Your task to perform on an android device: delete the emails in spam in the gmail app Image 0: 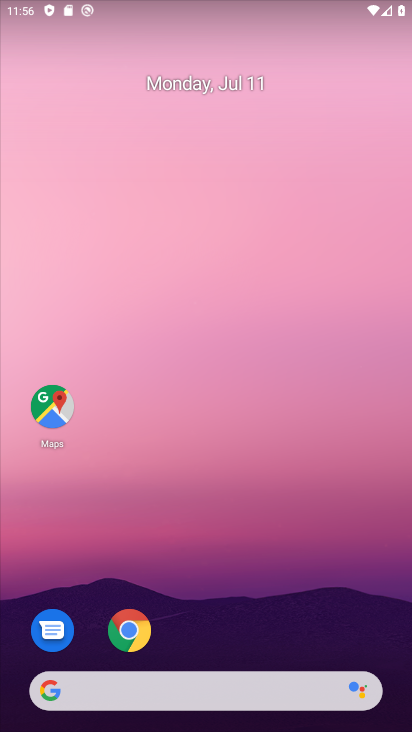
Step 0: drag from (212, 681) to (295, 94)
Your task to perform on an android device: delete the emails in spam in the gmail app Image 1: 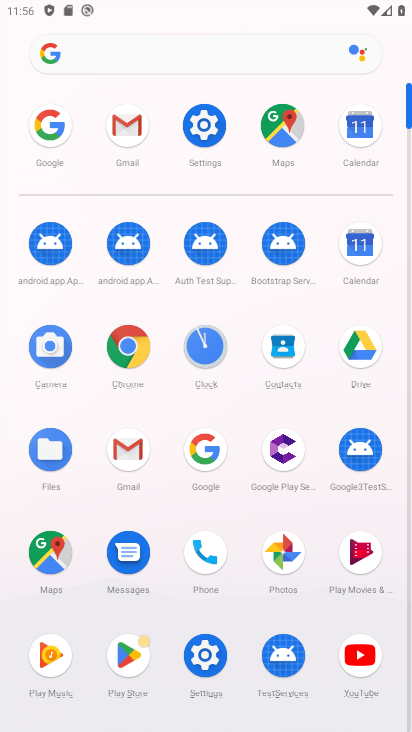
Step 1: click (125, 124)
Your task to perform on an android device: delete the emails in spam in the gmail app Image 2: 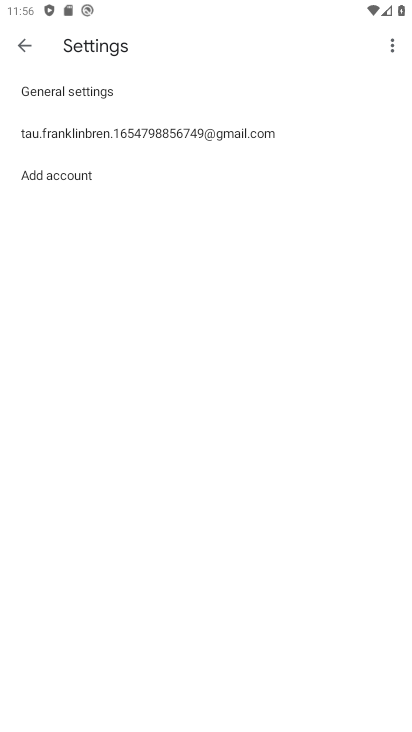
Step 2: press back button
Your task to perform on an android device: delete the emails in spam in the gmail app Image 3: 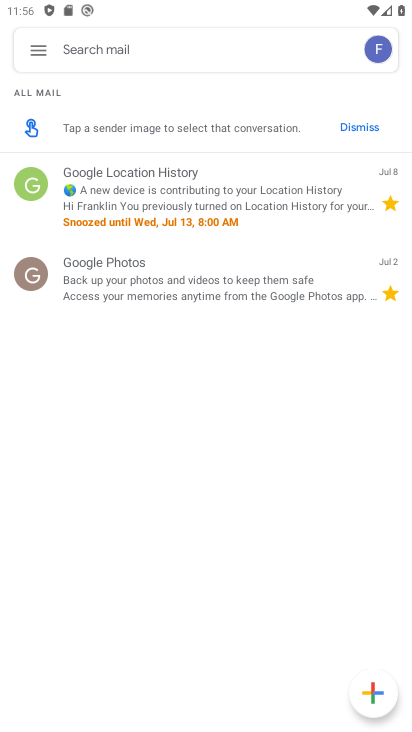
Step 3: click (37, 59)
Your task to perform on an android device: delete the emails in spam in the gmail app Image 4: 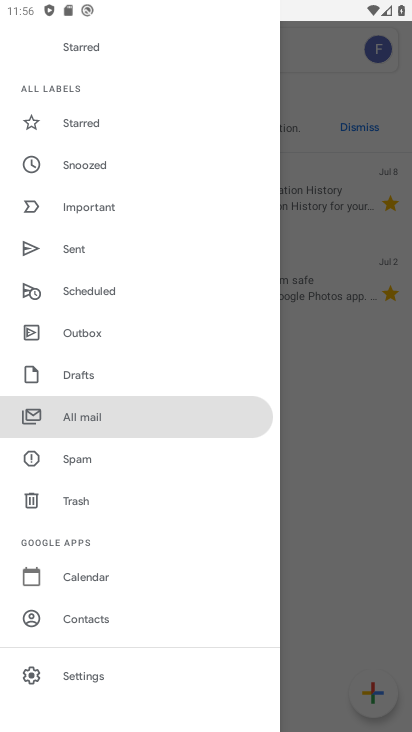
Step 4: click (81, 458)
Your task to perform on an android device: delete the emails in spam in the gmail app Image 5: 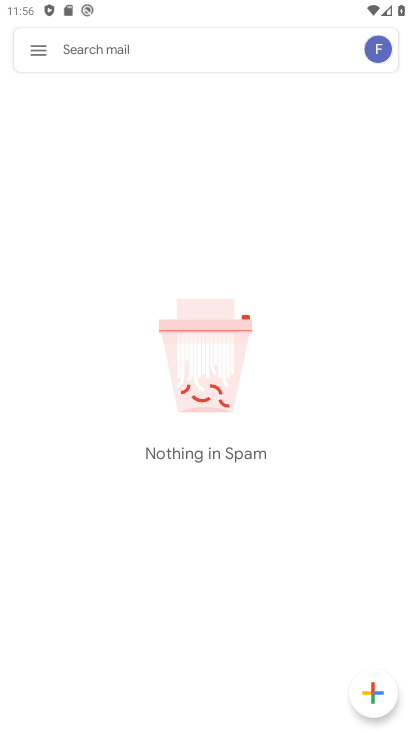
Step 5: task complete